Your task to perform on an android device: What's the price of the Galaxy phone? Image 0: 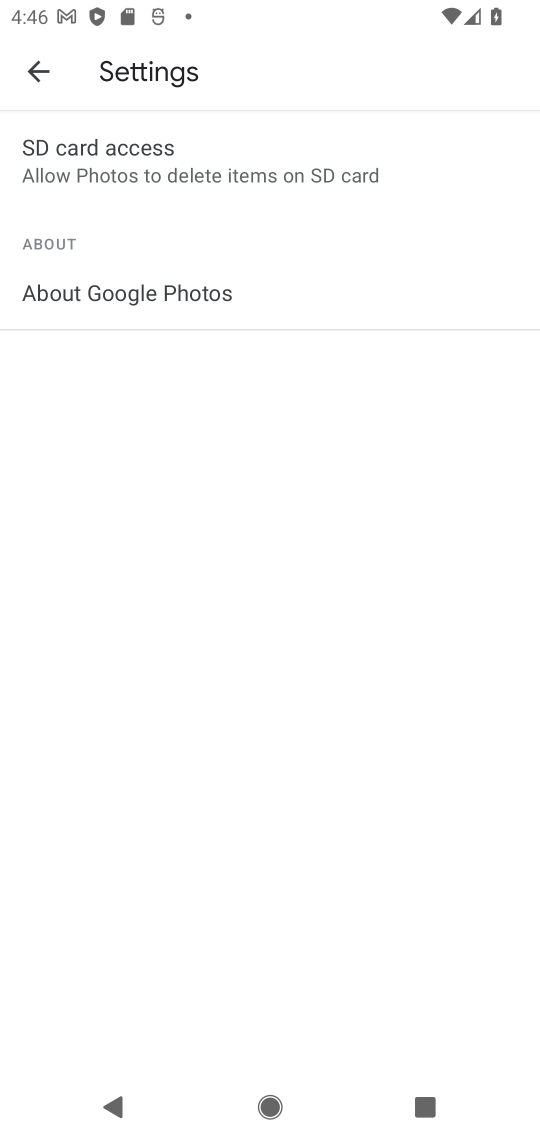
Step 0: press home button
Your task to perform on an android device: What's the price of the Galaxy phone? Image 1: 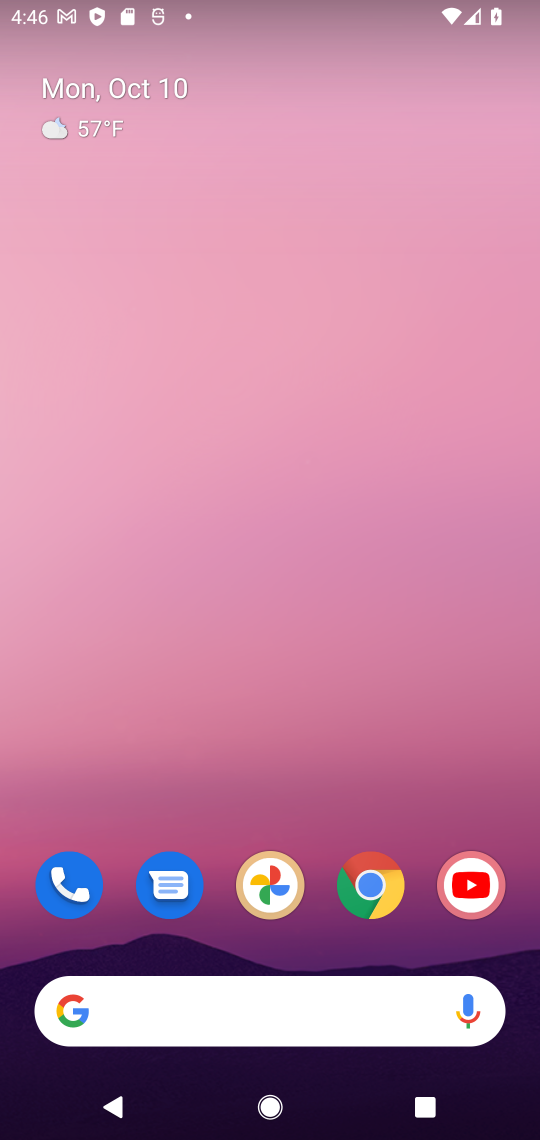
Step 1: click (320, 990)
Your task to perform on an android device: What's the price of the Galaxy phone? Image 2: 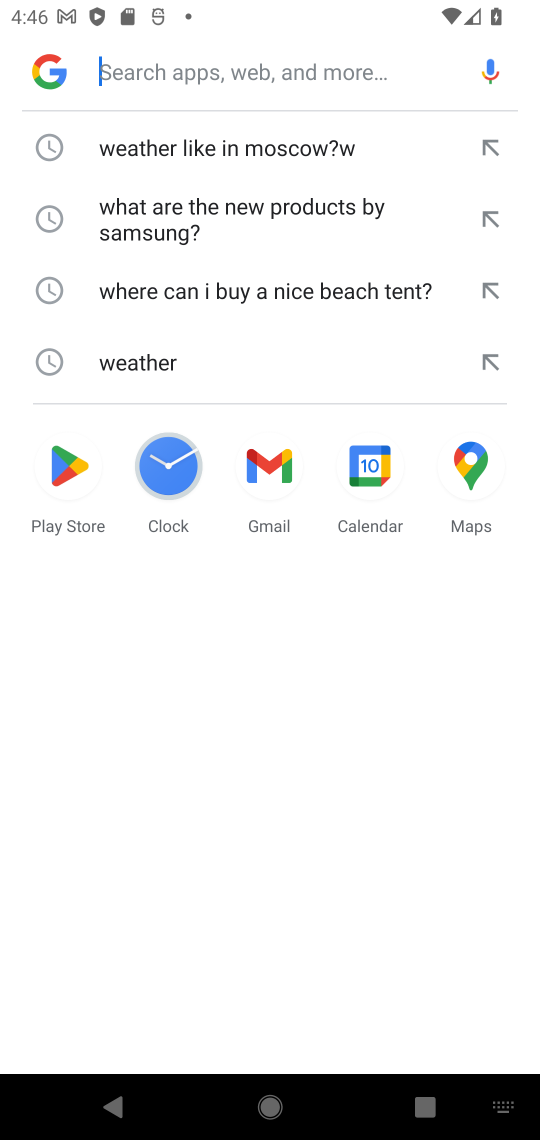
Step 2: type "What's the price of the Galaxy phone?"
Your task to perform on an android device: What's the price of the Galaxy phone? Image 3: 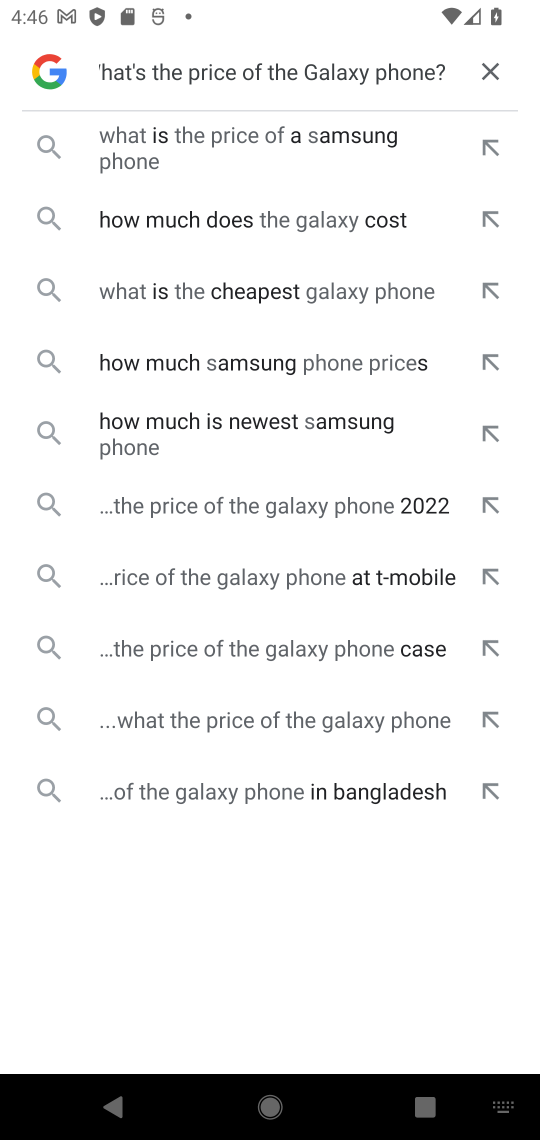
Step 3: click (236, 644)
Your task to perform on an android device: What's the price of the Galaxy phone? Image 4: 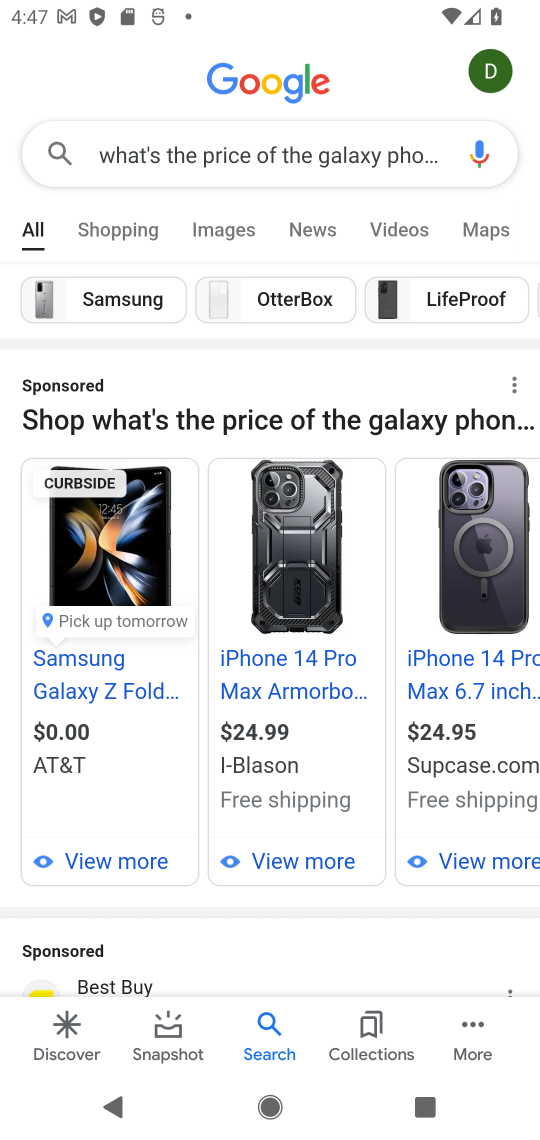
Step 4: click (72, 609)
Your task to perform on an android device: What's the price of the Galaxy phone? Image 5: 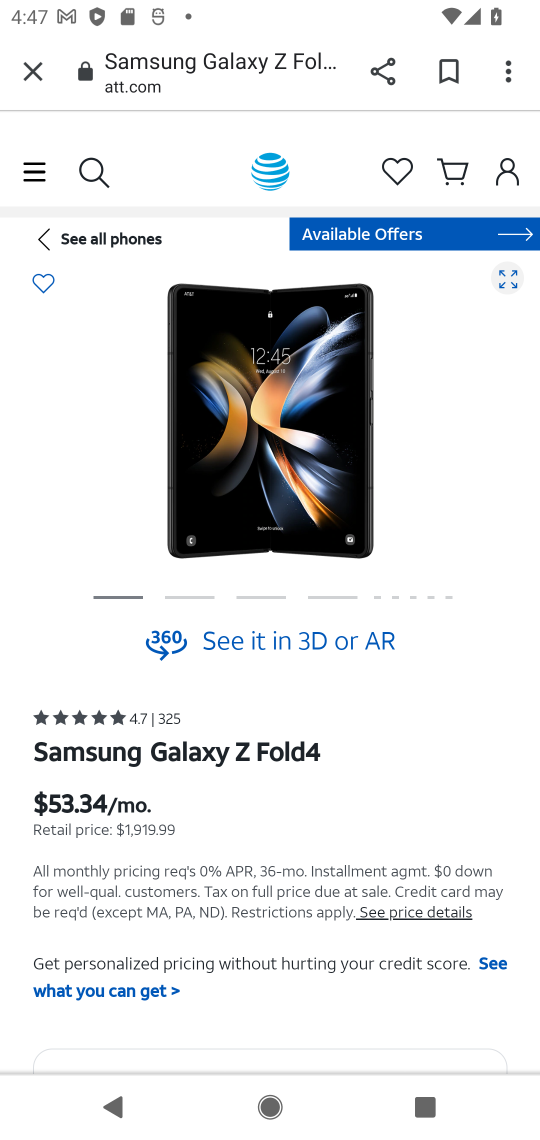
Step 5: task complete